Your task to perform on an android device: change the clock display to analog Image 0: 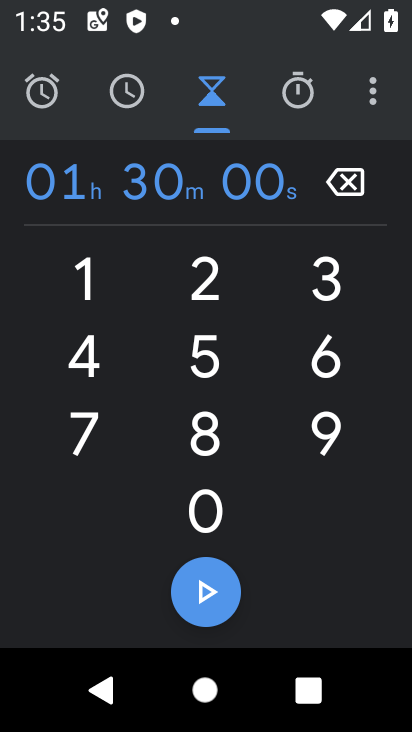
Step 0: click (375, 92)
Your task to perform on an android device: change the clock display to analog Image 1: 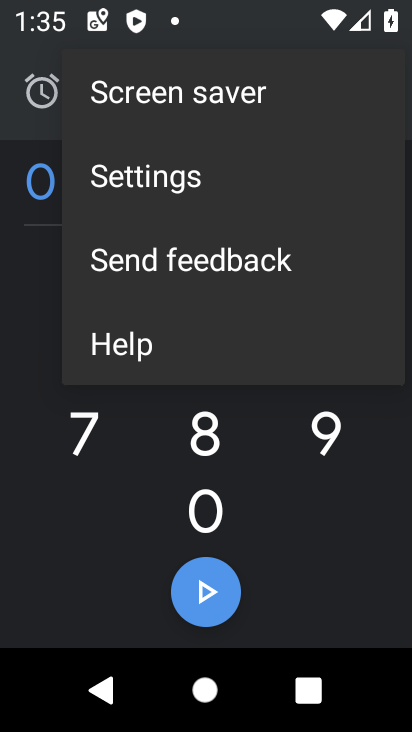
Step 1: click (173, 179)
Your task to perform on an android device: change the clock display to analog Image 2: 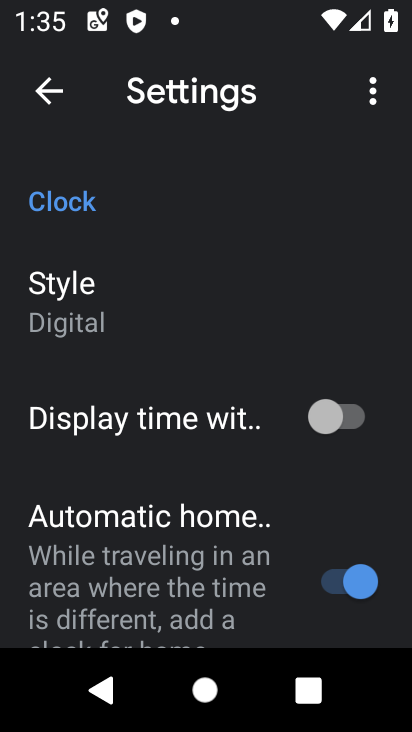
Step 2: click (92, 310)
Your task to perform on an android device: change the clock display to analog Image 3: 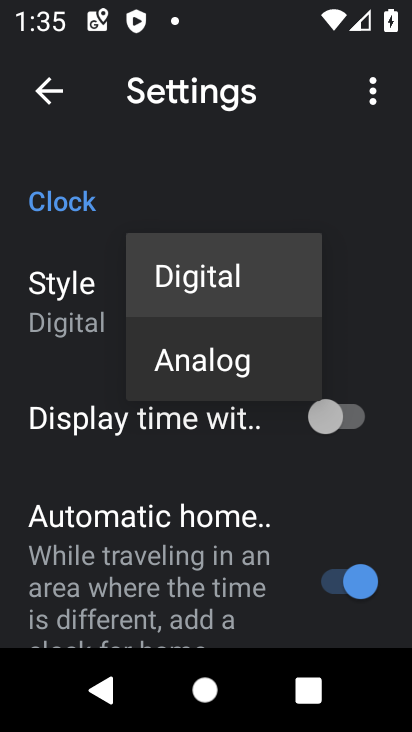
Step 3: click (178, 366)
Your task to perform on an android device: change the clock display to analog Image 4: 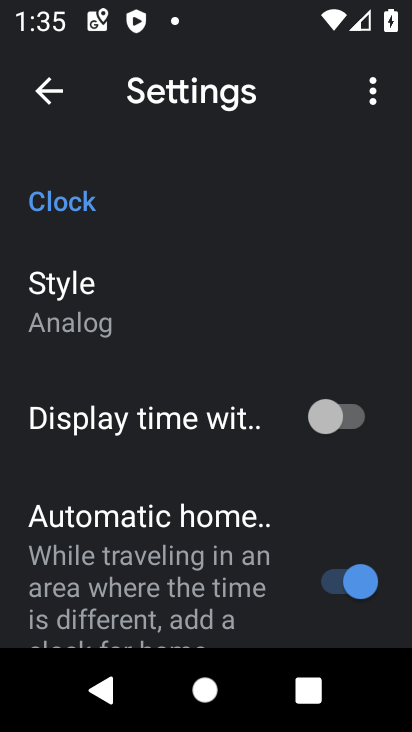
Step 4: task complete